Your task to perform on an android device: Open the stopwatch Image 0: 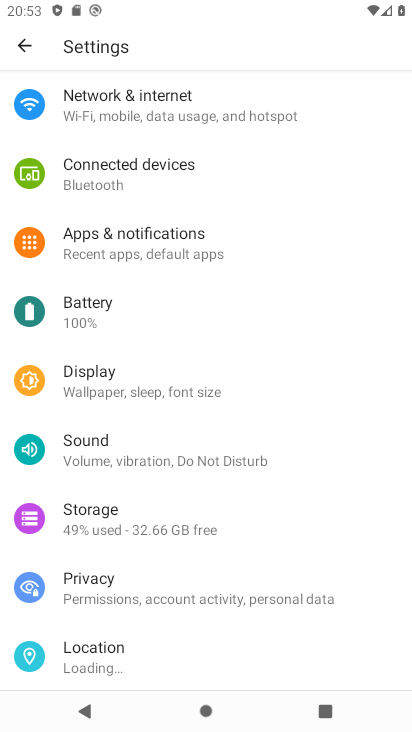
Step 0: press home button
Your task to perform on an android device: Open the stopwatch Image 1: 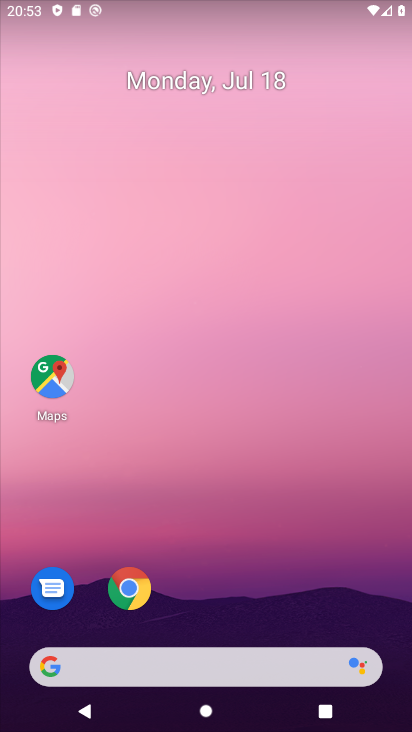
Step 1: drag from (173, 663) to (318, 89)
Your task to perform on an android device: Open the stopwatch Image 2: 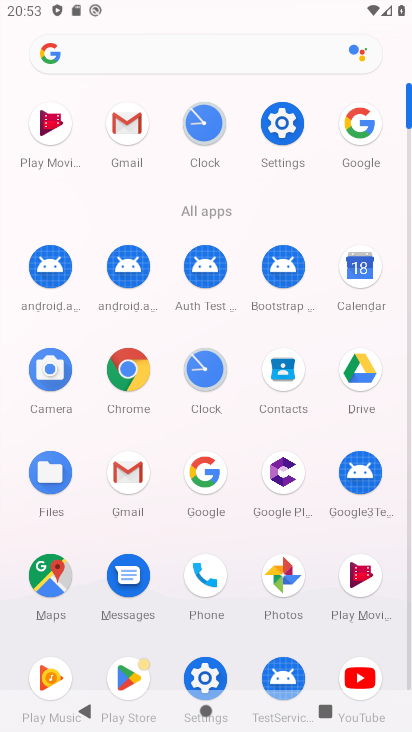
Step 2: click (205, 378)
Your task to perform on an android device: Open the stopwatch Image 3: 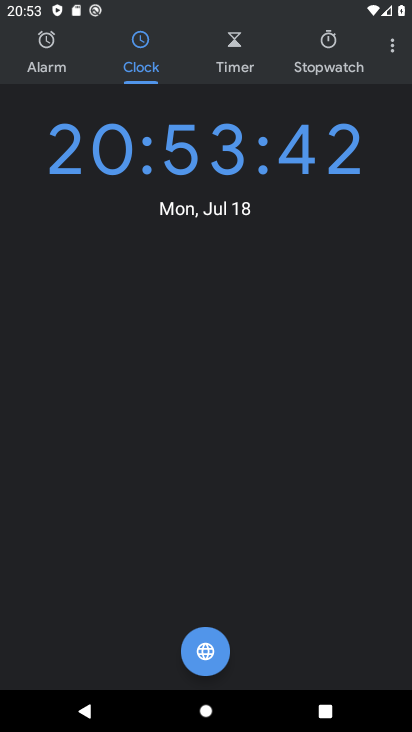
Step 3: click (324, 45)
Your task to perform on an android device: Open the stopwatch Image 4: 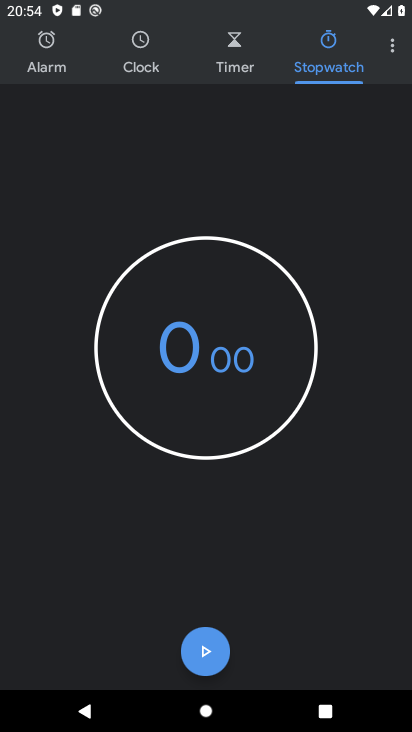
Step 4: task complete